Your task to perform on an android device: all mails in gmail Image 0: 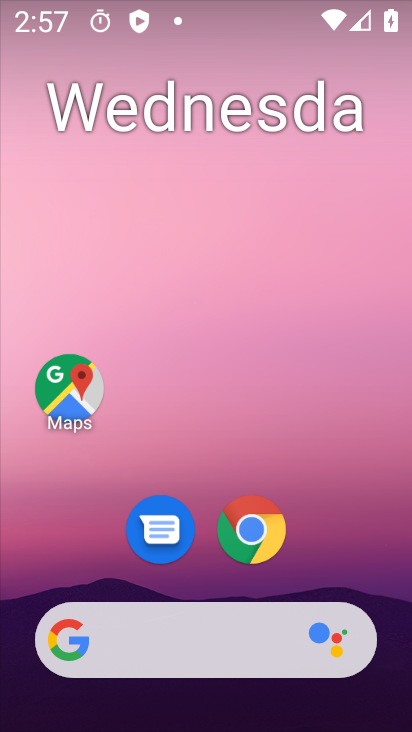
Step 0: drag from (320, 554) to (404, 226)
Your task to perform on an android device: all mails in gmail Image 1: 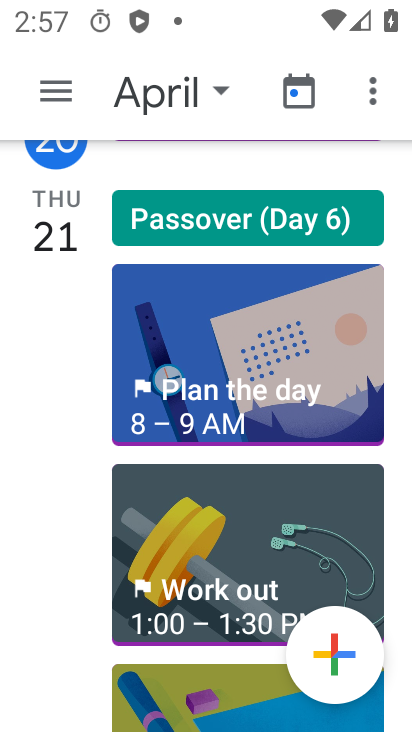
Step 1: press home button
Your task to perform on an android device: all mails in gmail Image 2: 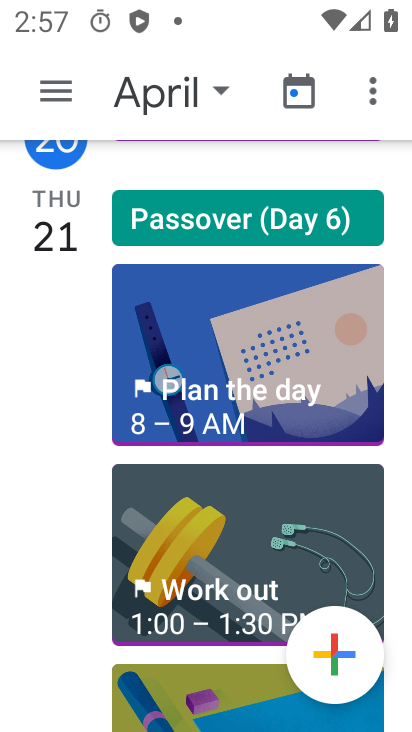
Step 2: click (383, 433)
Your task to perform on an android device: all mails in gmail Image 3: 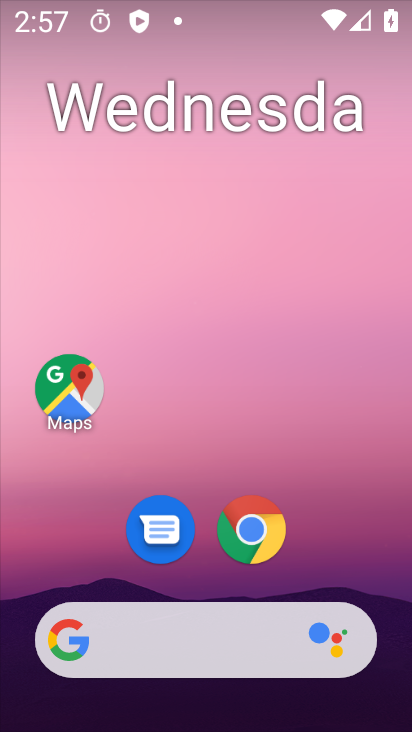
Step 3: drag from (326, 577) to (264, 220)
Your task to perform on an android device: all mails in gmail Image 4: 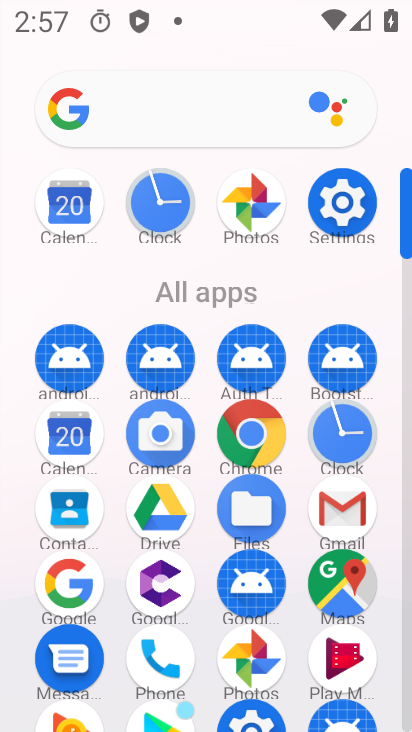
Step 4: click (331, 513)
Your task to perform on an android device: all mails in gmail Image 5: 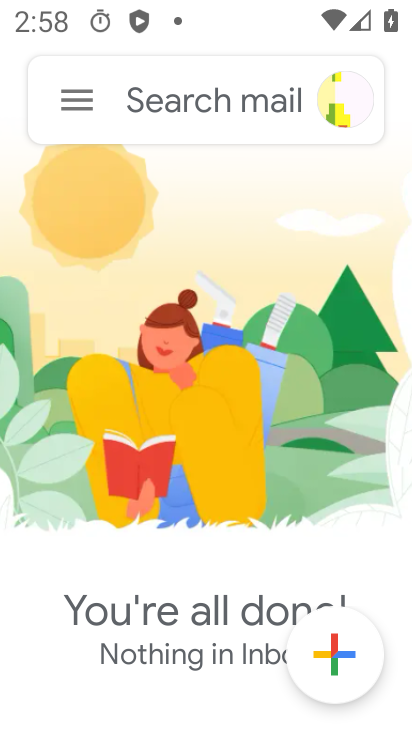
Step 5: click (75, 93)
Your task to perform on an android device: all mails in gmail Image 6: 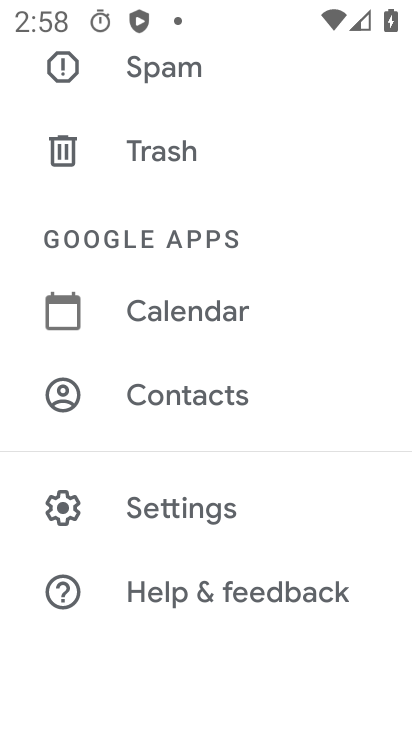
Step 6: drag from (182, 156) to (145, 267)
Your task to perform on an android device: all mails in gmail Image 7: 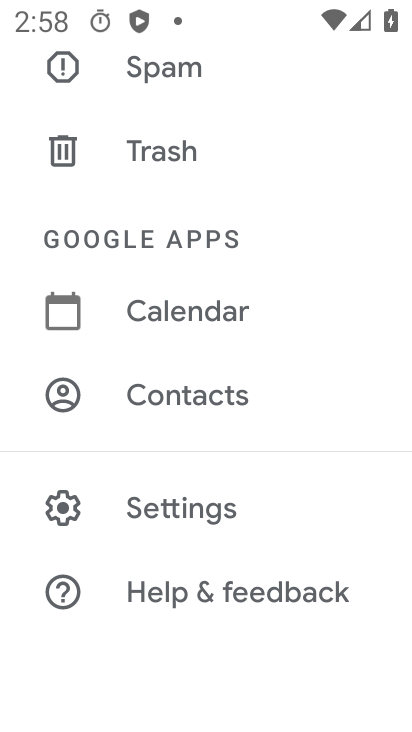
Step 7: drag from (163, 208) to (158, 299)
Your task to perform on an android device: all mails in gmail Image 8: 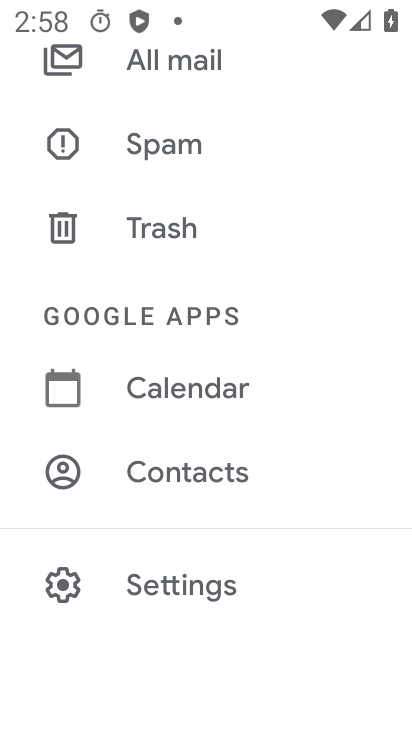
Step 8: click (207, 75)
Your task to perform on an android device: all mails in gmail Image 9: 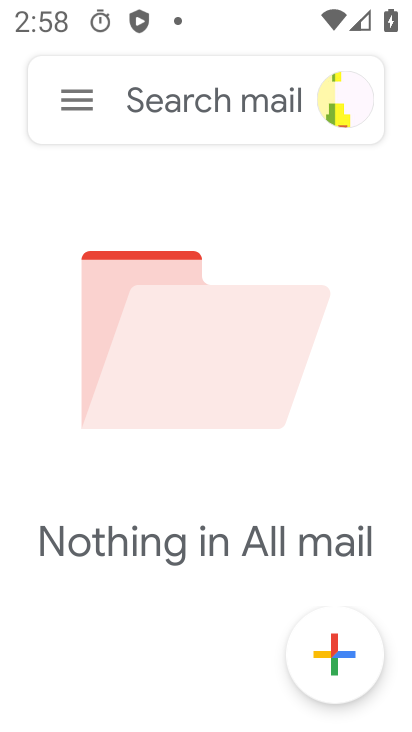
Step 9: task complete